Your task to perform on an android device: add a contact in the contacts app Image 0: 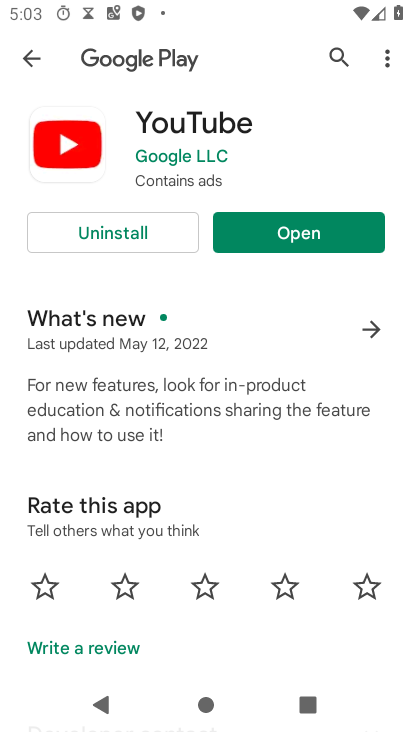
Step 0: press back button
Your task to perform on an android device: add a contact in the contacts app Image 1: 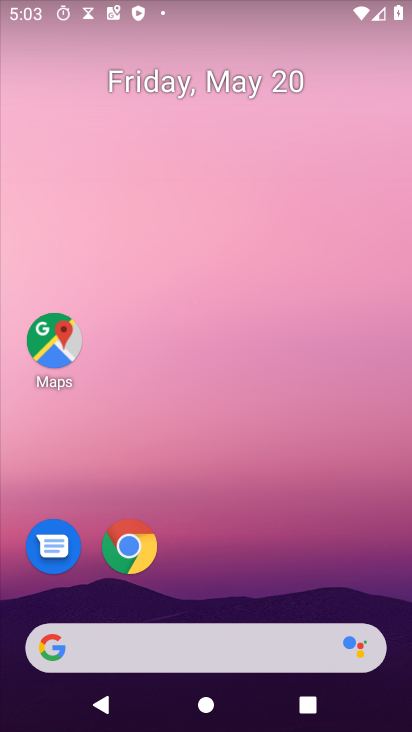
Step 1: drag from (267, 536) to (292, 224)
Your task to perform on an android device: add a contact in the contacts app Image 2: 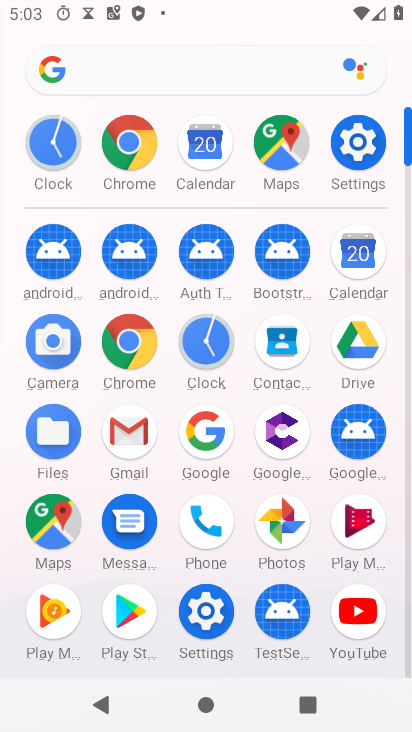
Step 2: click (289, 345)
Your task to perform on an android device: add a contact in the contacts app Image 3: 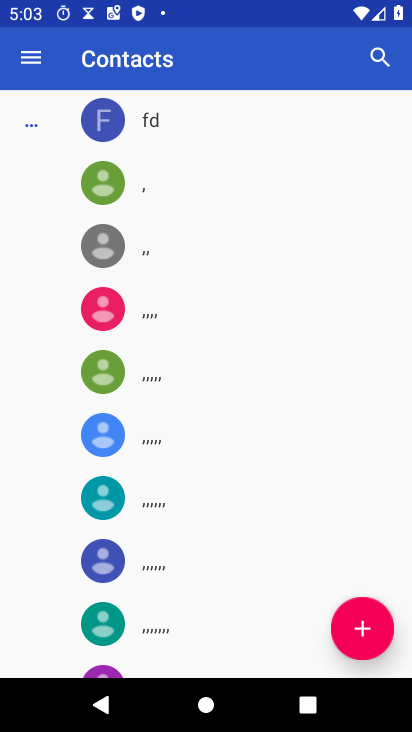
Step 3: click (367, 626)
Your task to perform on an android device: add a contact in the contacts app Image 4: 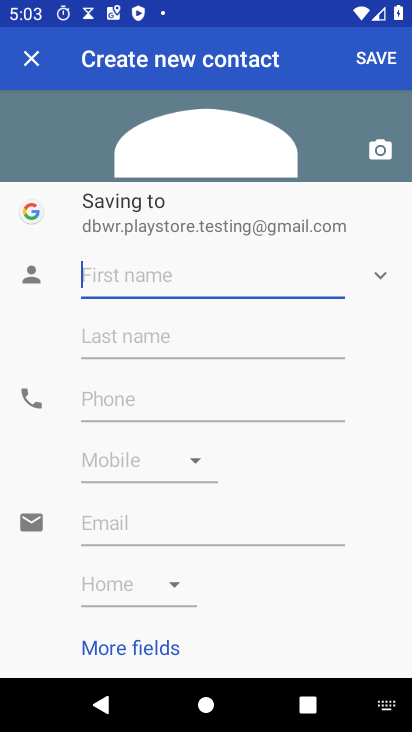
Step 4: type "Glen "
Your task to perform on an android device: add a contact in the contacts app Image 5: 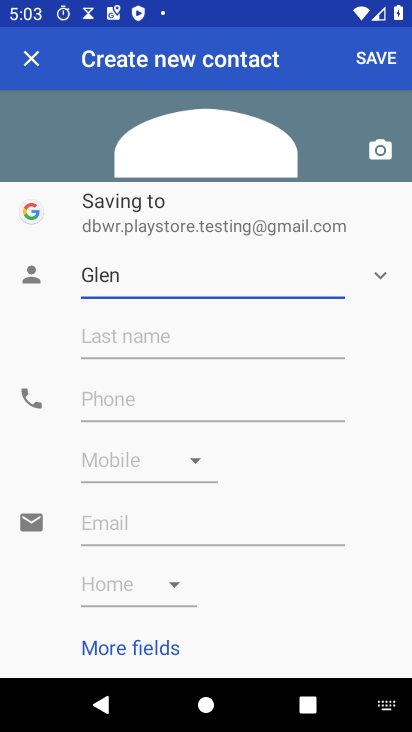
Step 5: click (240, 343)
Your task to perform on an android device: add a contact in the contacts app Image 6: 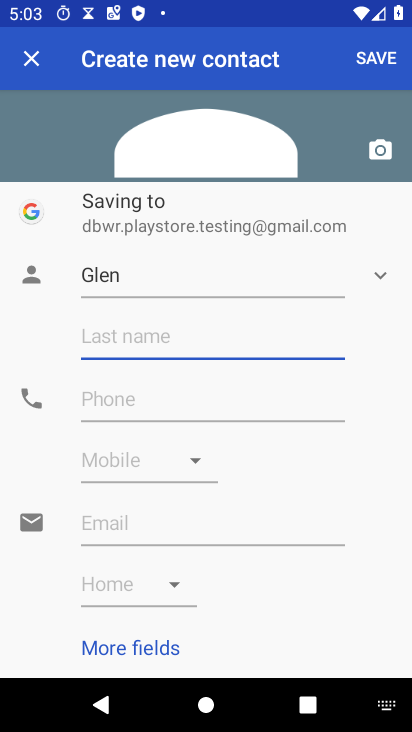
Step 6: type "Mecgrath"
Your task to perform on an android device: add a contact in the contacts app Image 7: 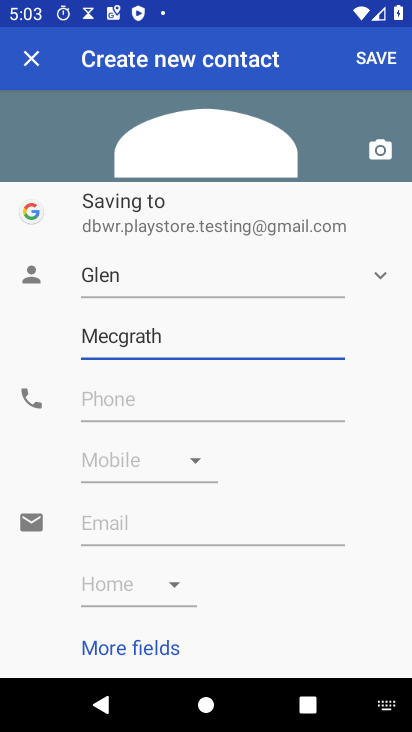
Step 7: click (141, 407)
Your task to perform on an android device: add a contact in the contacts app Image 8: 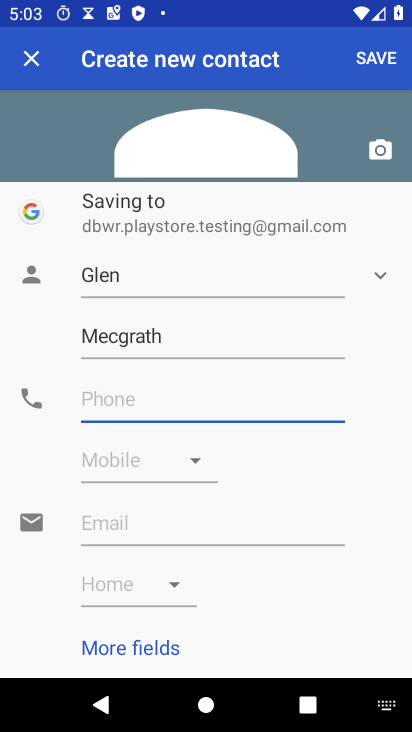
Step 8: click (141, 407)
Your task to perform on an android device: add a contact in the contacts app Image 9: 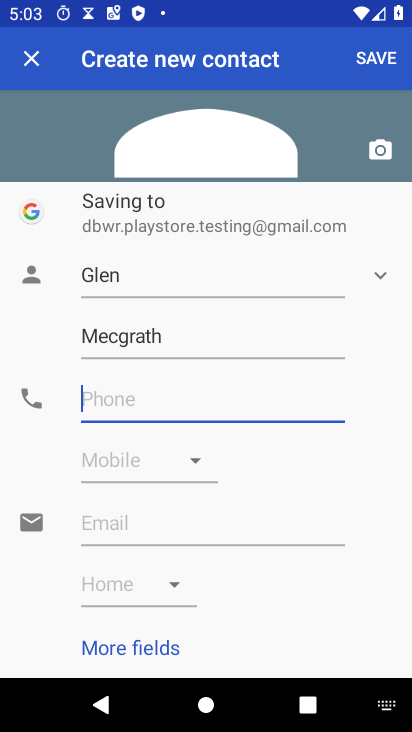
Step 9: type "09876543456"
Your task to perform on an android device: add a contact in the contacts app Image 10: 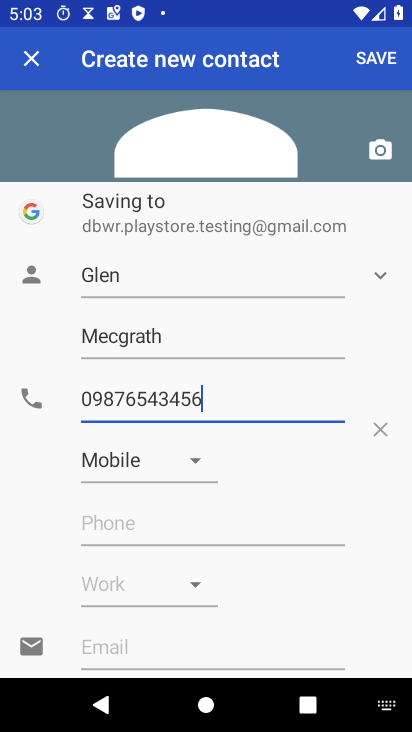
Step 10: click (357, 60)
Your task to perform on an android device: add a contact in the contacts app Image 11: 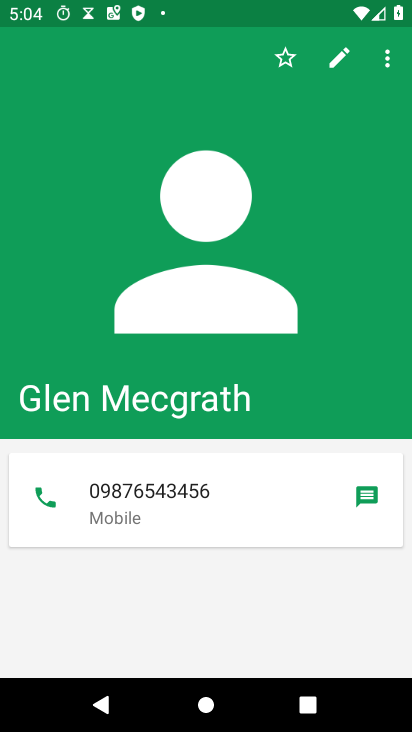
Step 11: task complete